Your task to perform on an android device: turn off location Image 0: 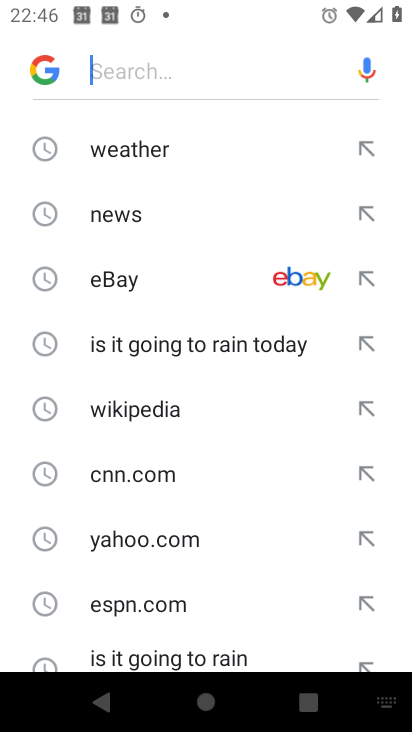
Step 0: press home button
Your task to perform on an android device: turn off location Image 1: 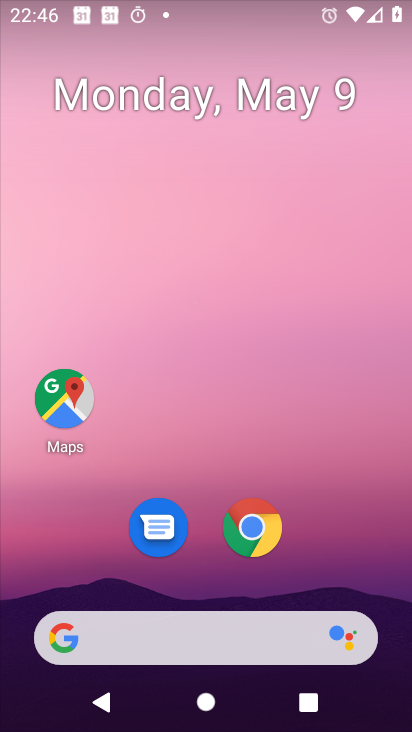
Step 1: drag from (206, 559) to (211, 75)
Your task to perform on an android device: turn off location Image 2: 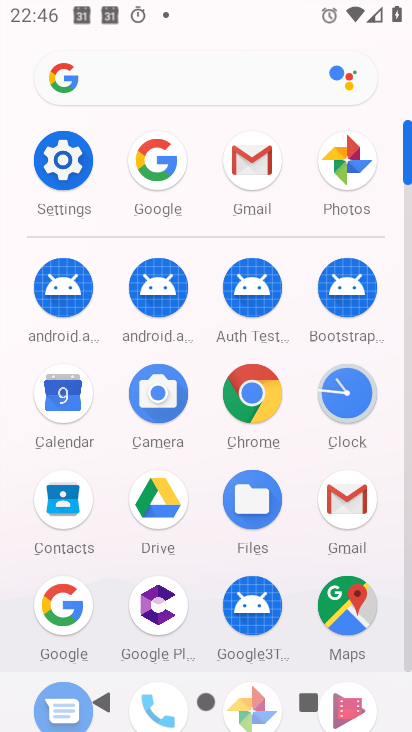
Step 2: click (61, 157)
Your task to perform on an android device: turn off location Image 3: 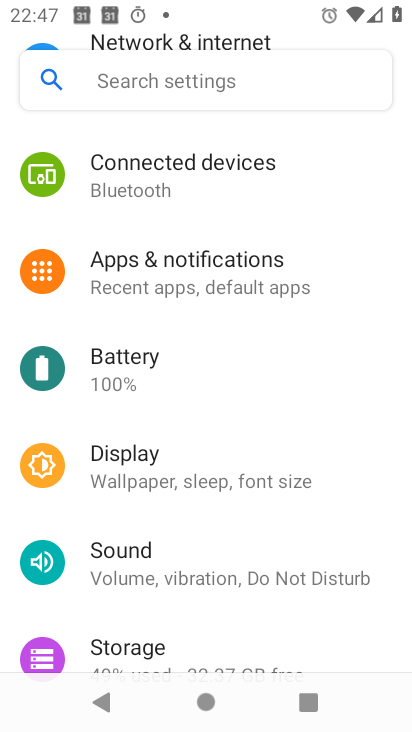
Step 3: drag from (209, 553) to (197, 99)
Your task to perform on an android device: turn off location Image 4: 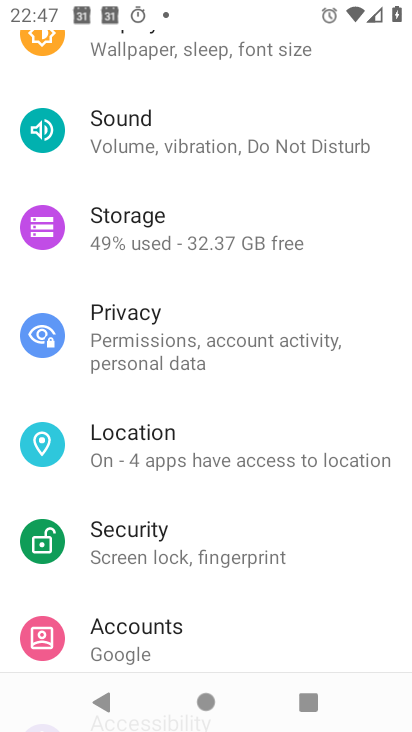
Step 4: click (173, 444)
Your task to perform on an android device: turn off location Image 5: 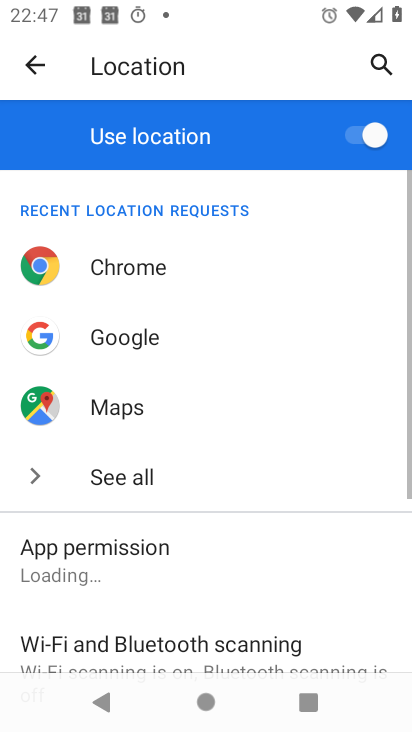
Step 5: click (369, 136)
Your task to perform on an android device: turn off location Image 6: 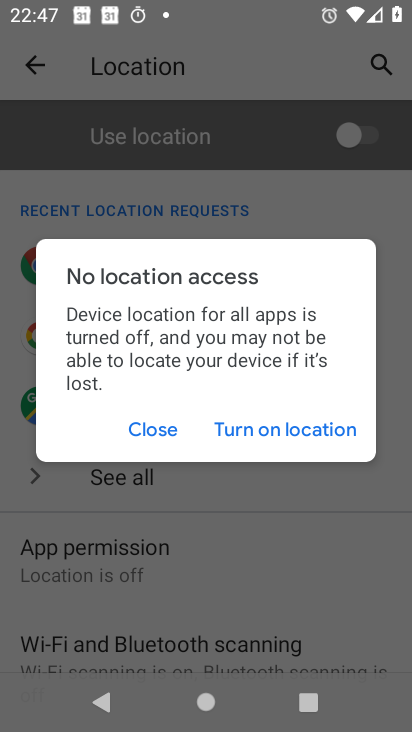
Step 6: click (160, 422)
Your task to perform on an android device: turn off location Image 7: 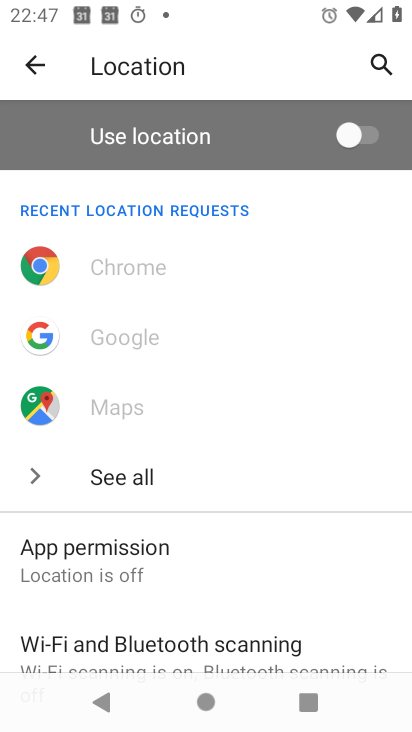
Step 7: task complete